Your task to perform on an android device: open app "Mercado Libre" Image 0: 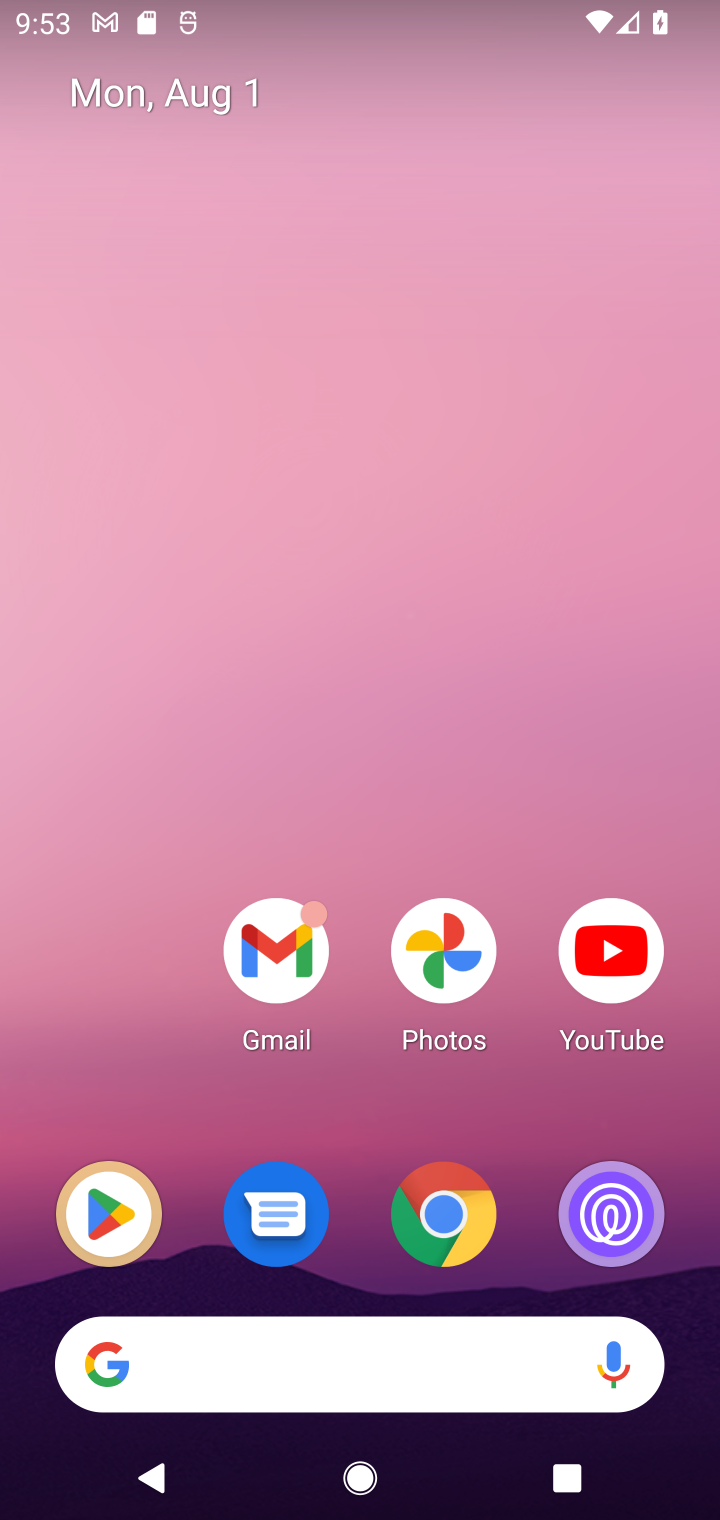
Step 0: press home button
Your task to perform on an android device: open app "Mercado Libre" Image 1: 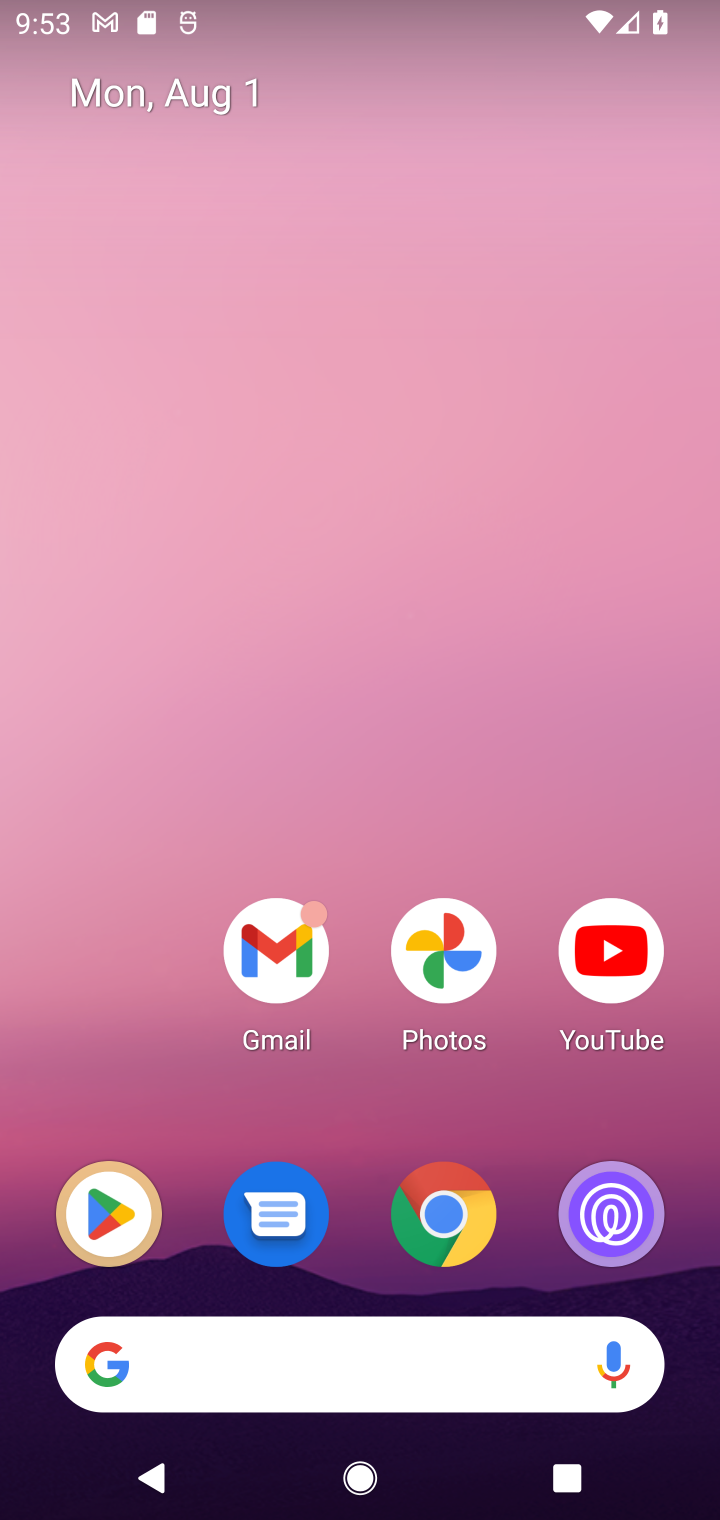
Step 1: click (90, 1219)
Your task to perform on an android device: open app "Mercado Libre" Image 2: 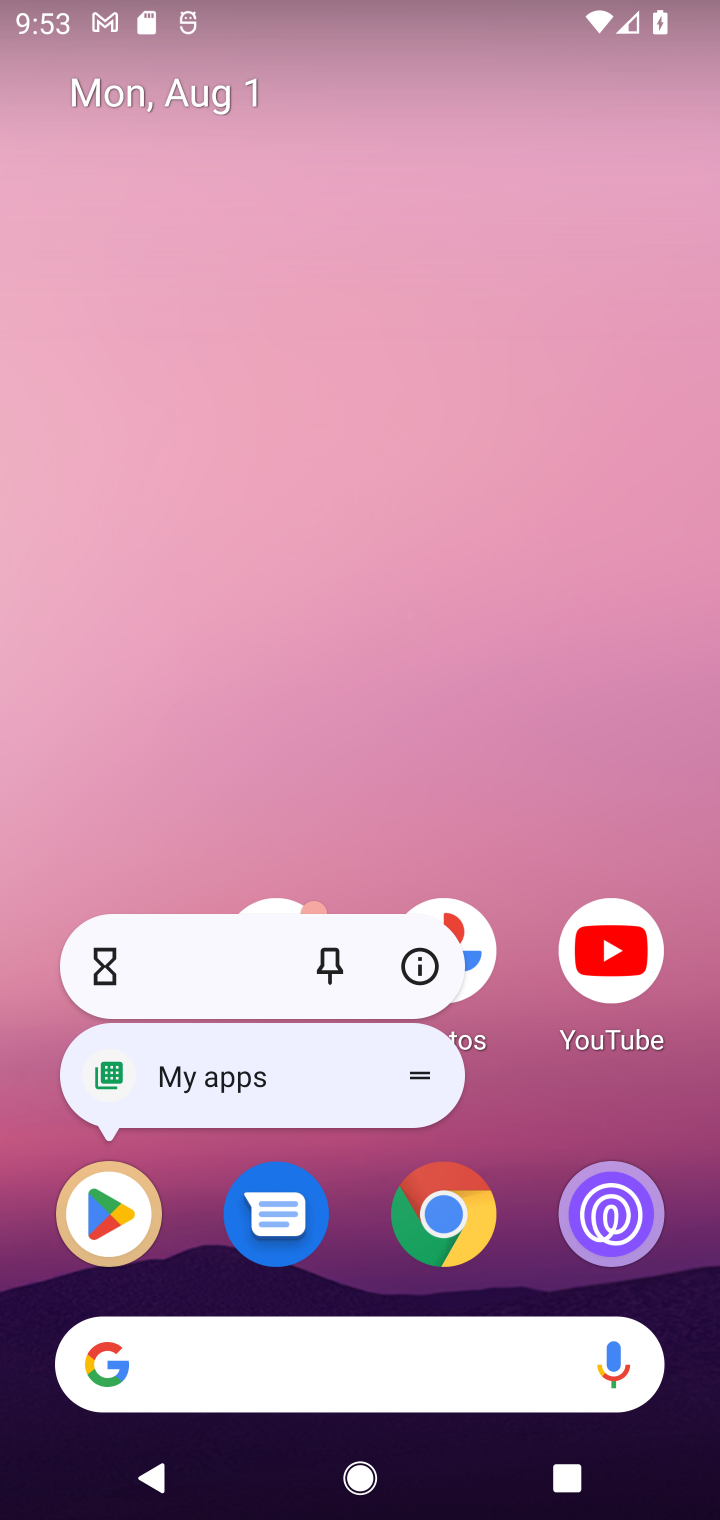
Step 2: click (103, 1206)
Your task to perform on an android device: open app "Mercado Libre" Image 3: 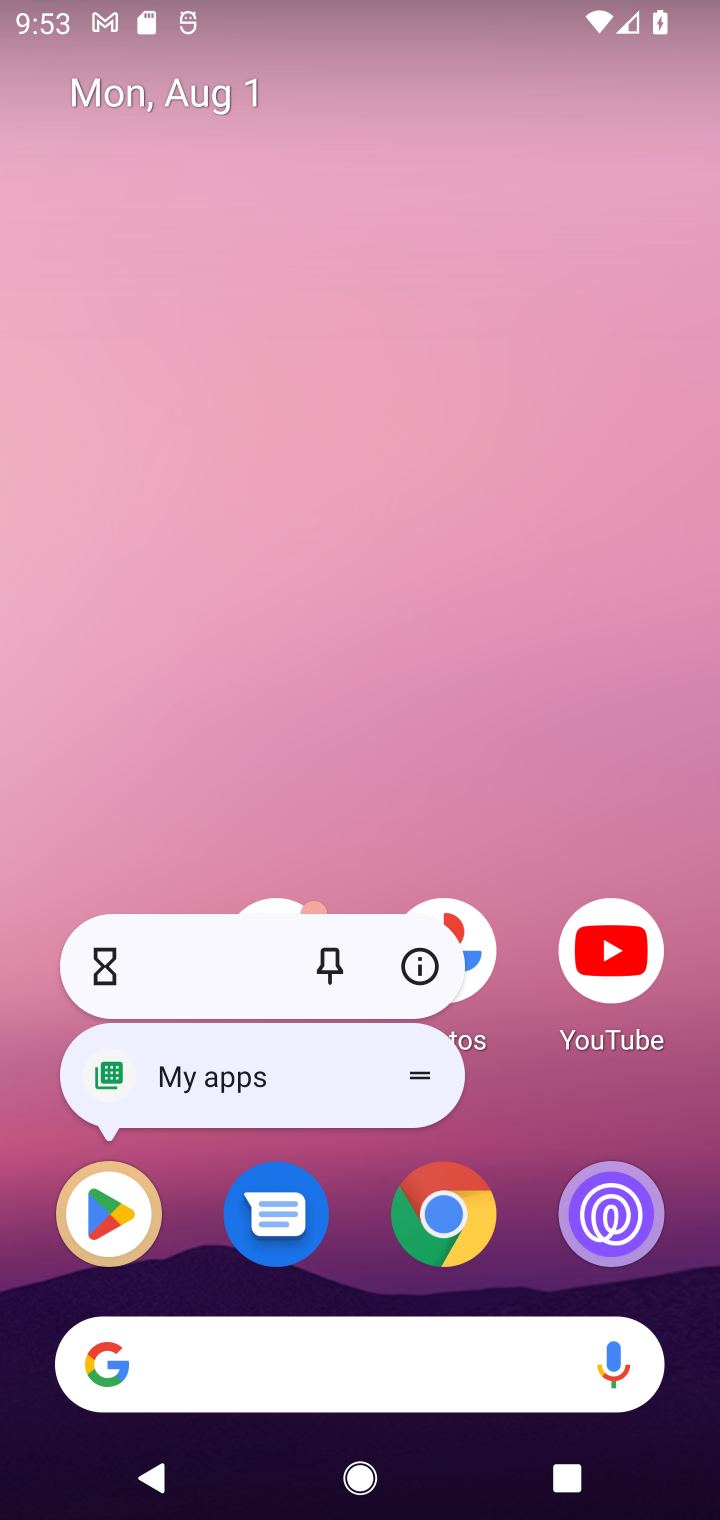
Step 3: click (103, 1222)
Your task to perform on an android device: open app "Mercado Libre" Image 4: 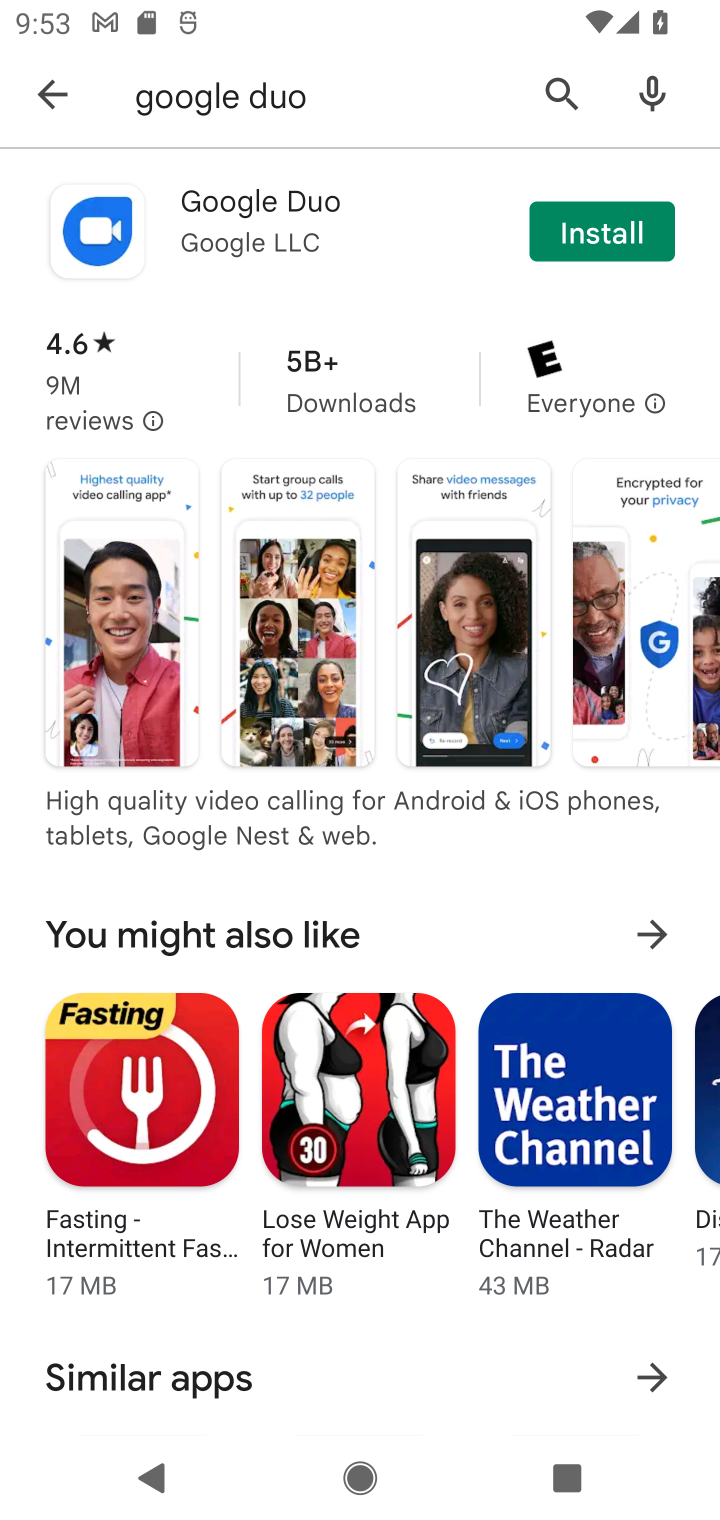
Step 4: click (556, 79)
Your task to perform on an android device: open app "Mercado Libre" Image 5: 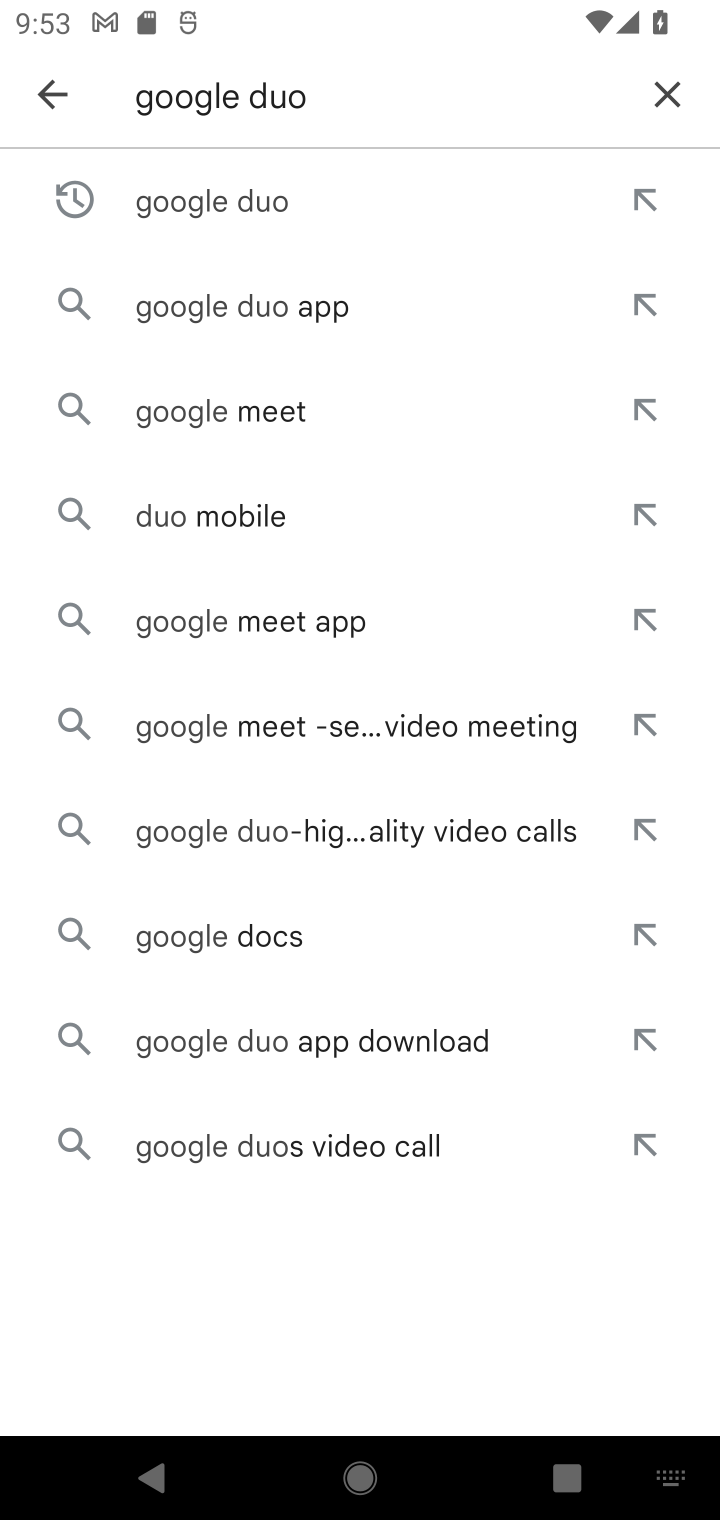
Step 5: click (656, 88)
Your task to perform on an android device: open app "Mercado Libre" Image 6: 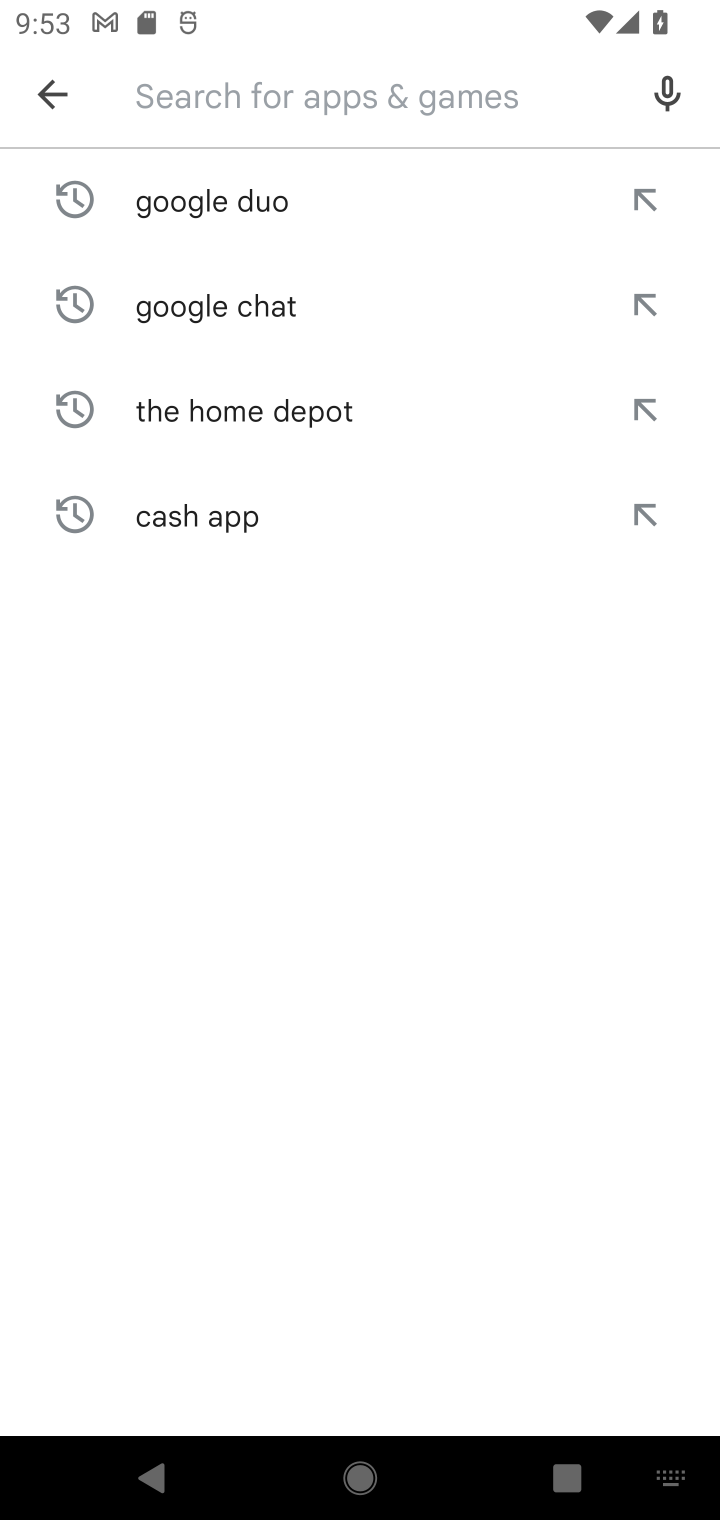
Step 6: type "Mercado Libre"
Your task to perform on an android device: open app "Mercado Libre" Image 7: 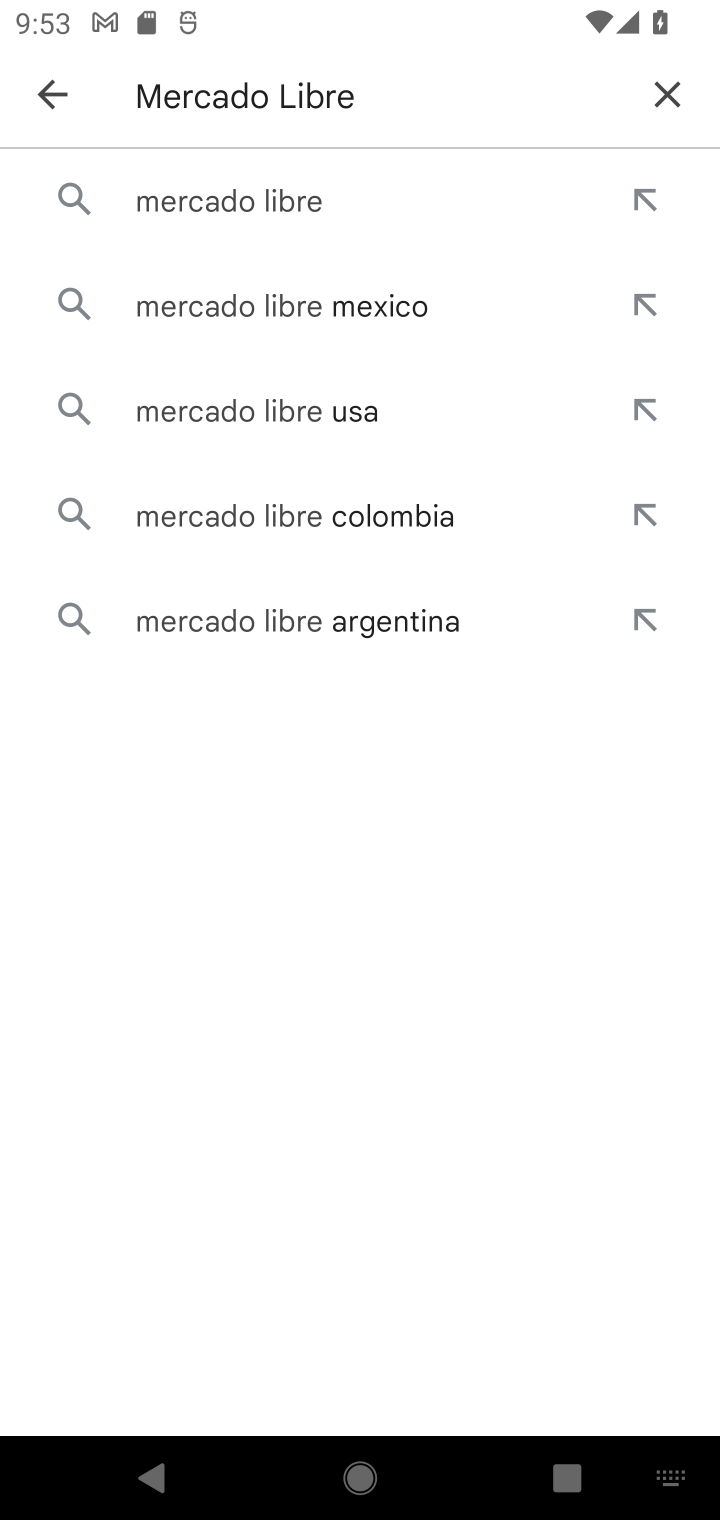
Step 7: click (303, 189)
Your task to perform on an android device: open app "Mercado Libre" Image 8: 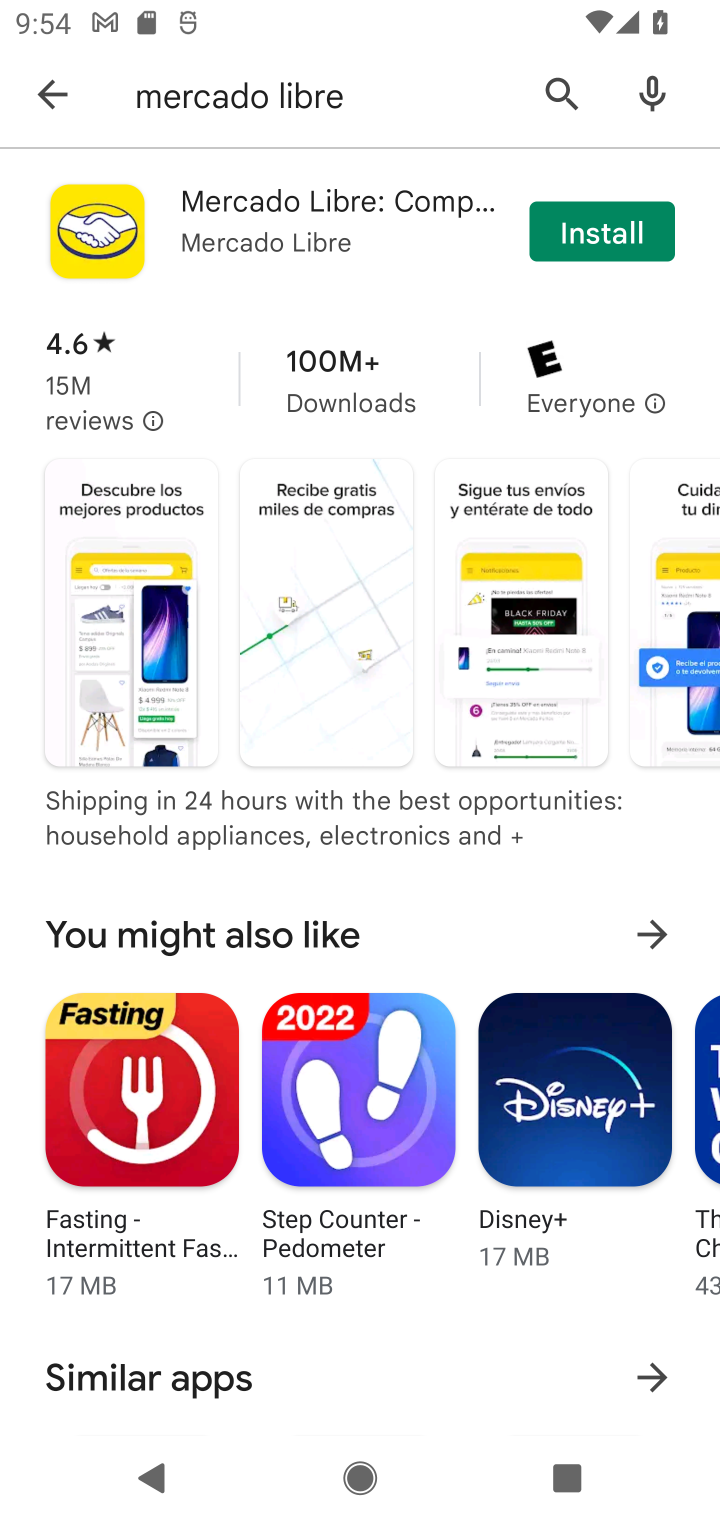
Step 8: task complete